Your task to perform on an android device: Show me popular games on the Play Store Image 0: 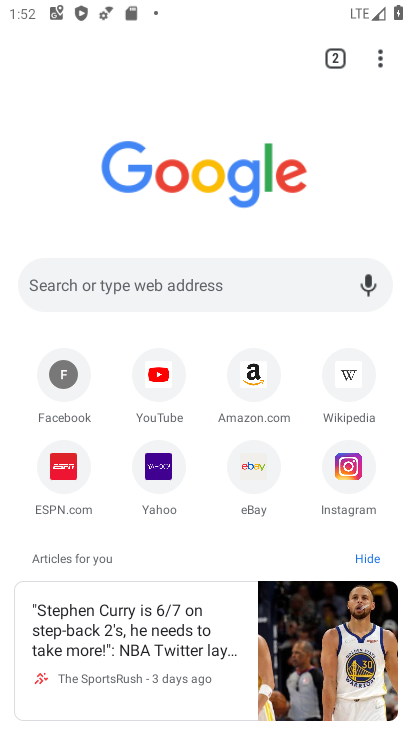
Step 0: press home button
Your task to perform on an android device: Show me popular games on the Play Store Image 1: 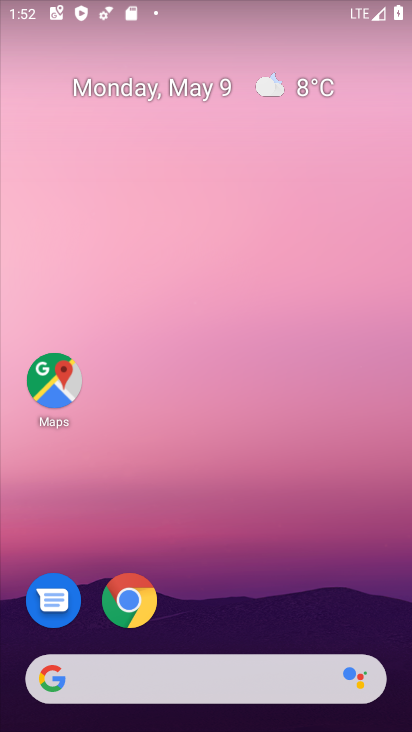
Step 1: drag from (212, 638) to (220, 72)
Your task to perform on an android device: Show me popular games on the Play Store Image 2: 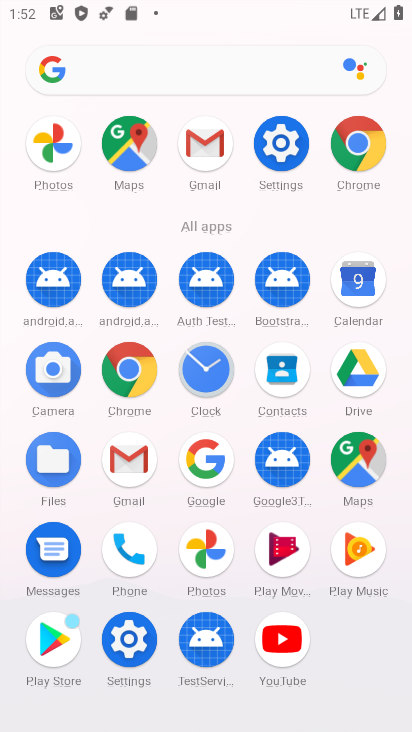
Step 2: click (53, 636)
Your task to perform on an android device: Show me popular games on the Play Store Image 3: 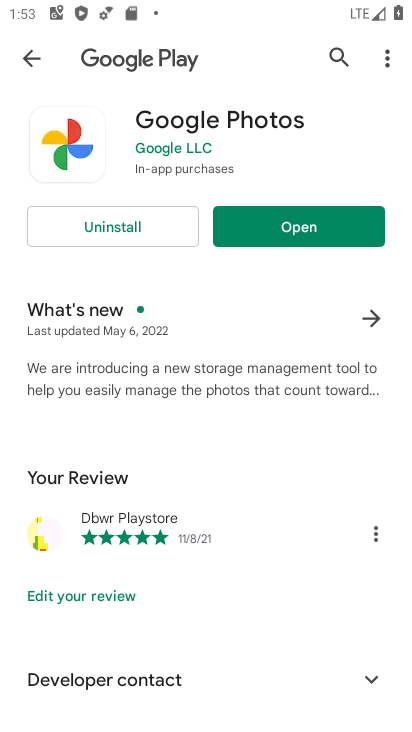
Step 3: click (33, 57)
Your task to perform on an android device: Show me popular games on the Play Store Image 4: 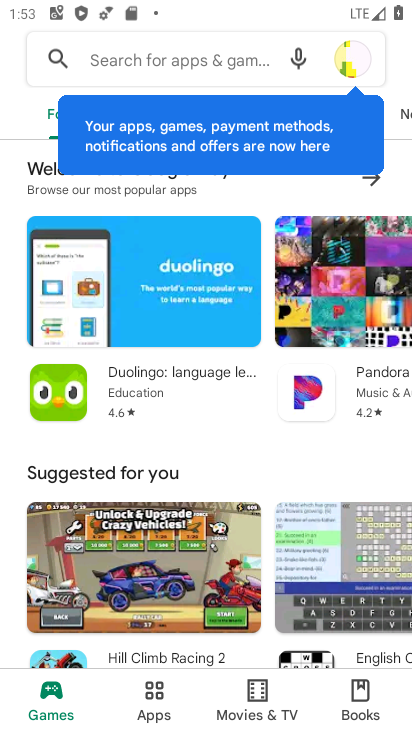
Step 4: drag from (99, 551) to (114, 167)
Your task to perform on an android device: Show me popular games on the Play Store Image 5: 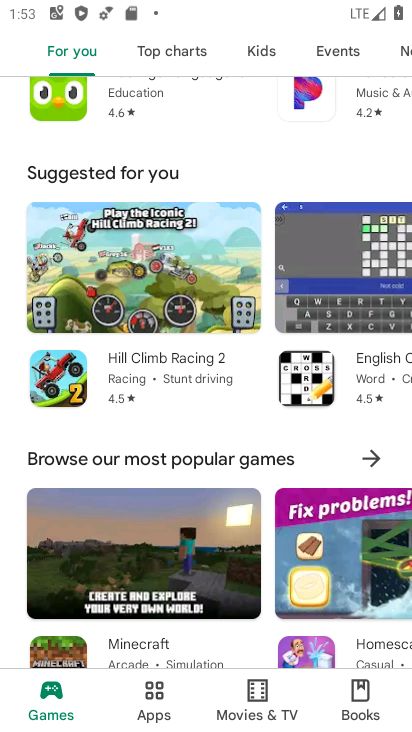
Step 5: click (372, 449)
Your task to perform on an android device: Show me popular games on the Play Store Image 6: 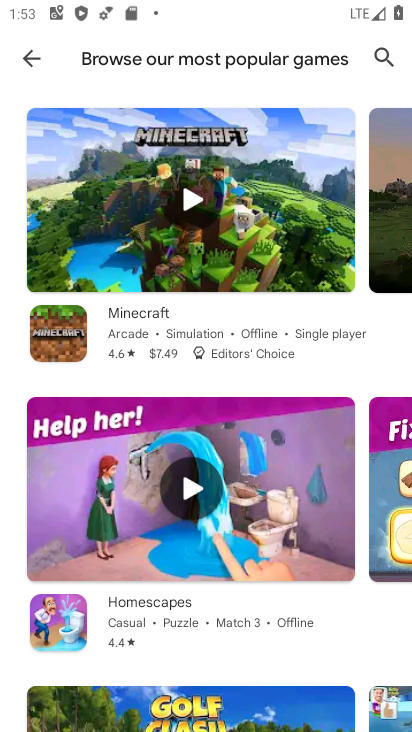
Step 6: task complete